Your task to perform on an android device: toggle airplane mode Image 0: 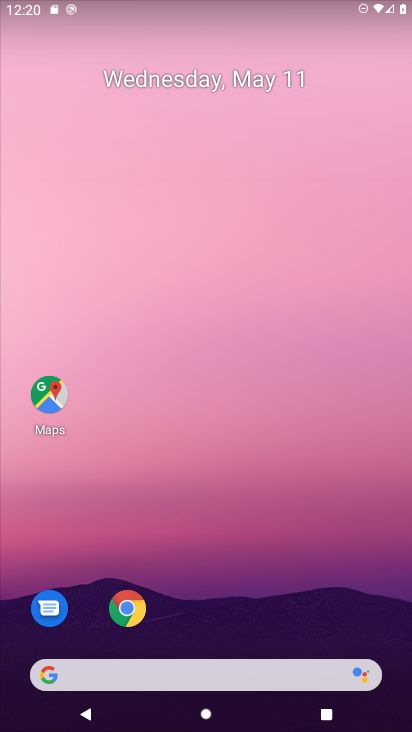
Step 0: drag from (275, 526) to (311, 33)
Your task to perform on an android device: toggle airplane mode Image 1: 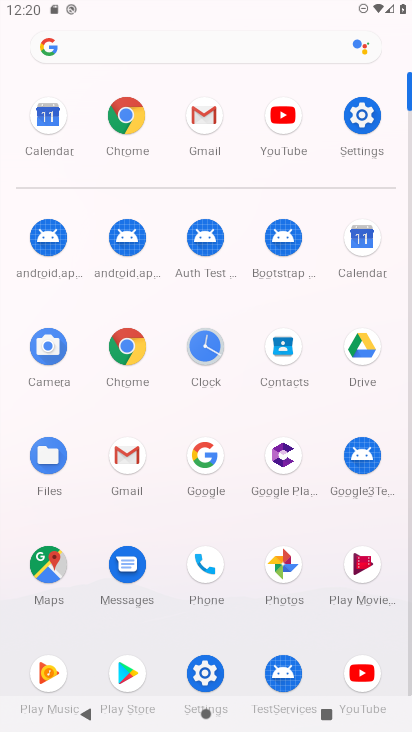
Step 1: click (363, 117)
Your task to perform on an android device: toggle airplane mode Image 2: 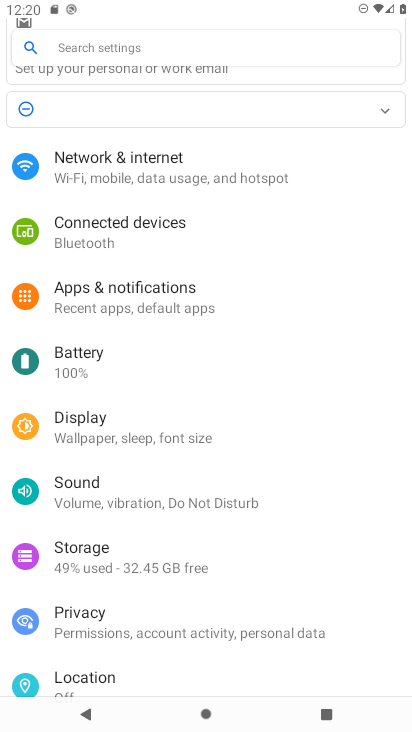
Step 2: click (227, 174)
Your task to perform on an android device: toggle airplane mode Image 3: 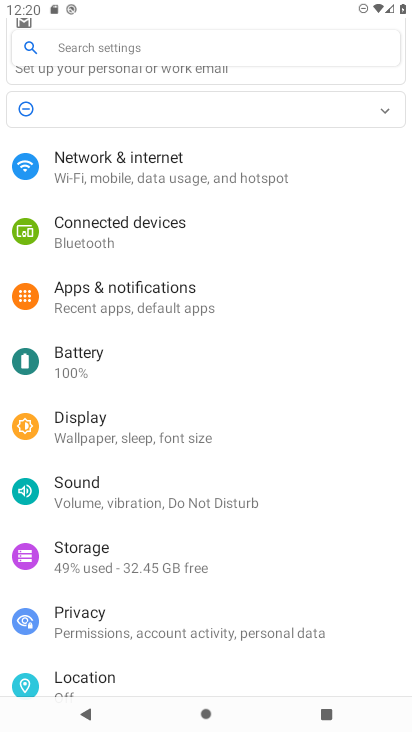
Step 3: click (227, 170)
Your task to perform on an android device: toggle airplane mode Image 4: 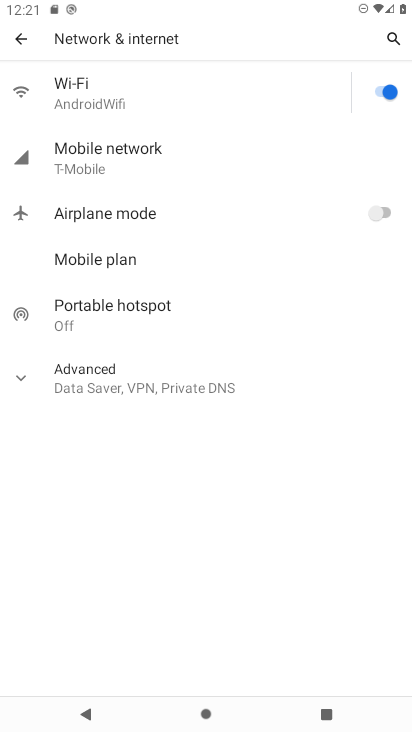
Step 4: click (385, 208)
Your task to perform on an android device: toggle airplane mode Image 5: 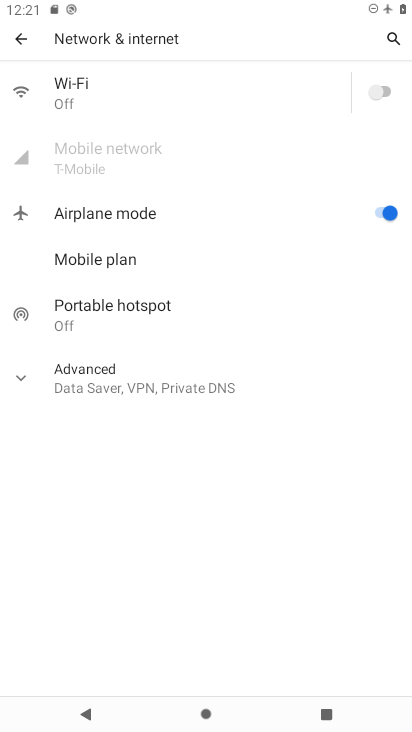
Step 5: task complete